Your task to perform on an android device: turn pop-ups on in chrome Image 0: 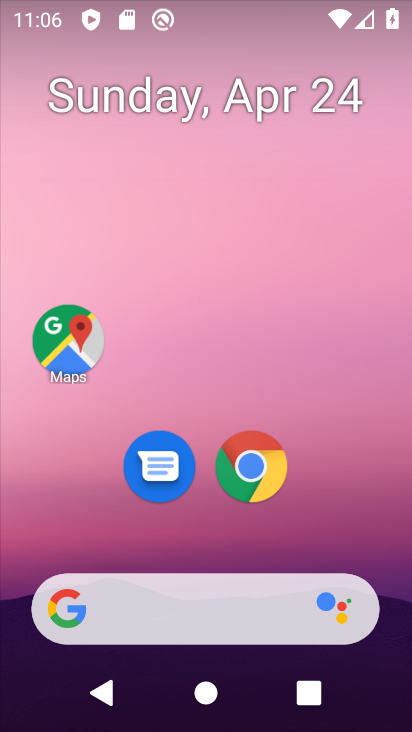
Step 0: click (272, 459)
Your task to perform on an android device: turn pop-ups on in chrome Image 1: 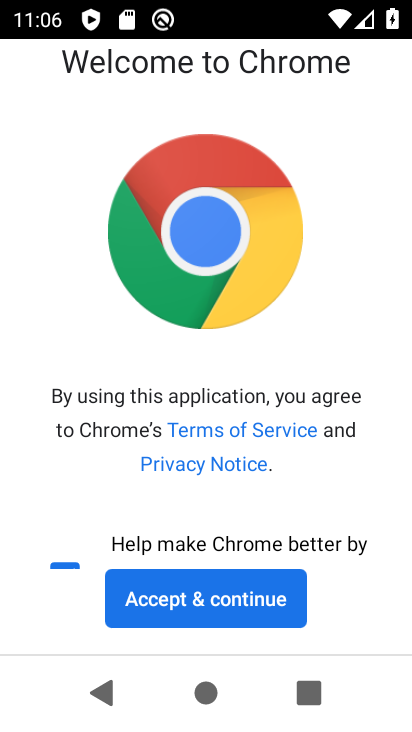
Step 1: click (244, 606)
Your task to perform on an android device: turn pop-ups on in chrome Image 2: 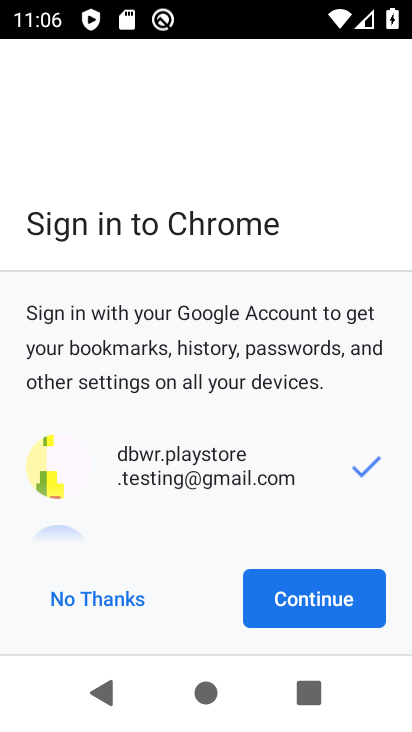
Step 2: click (259, 587)
Your task to perform on an android device: turn pop-ups on in chrome Image 3: 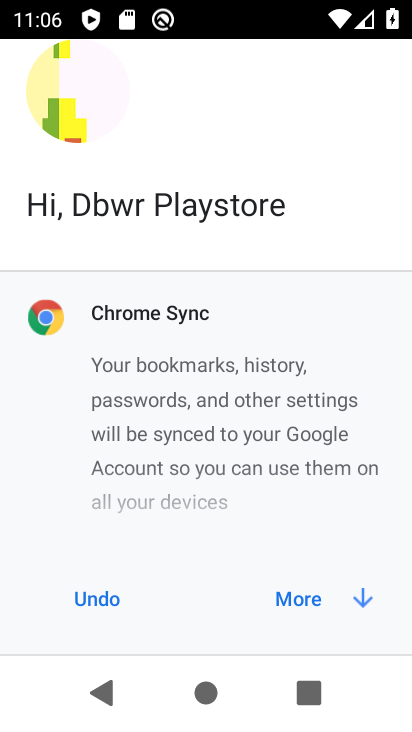
Step 3: click (323, 599)
Your task to perform on an android device: turn pop-ups on in chrome Image 4: 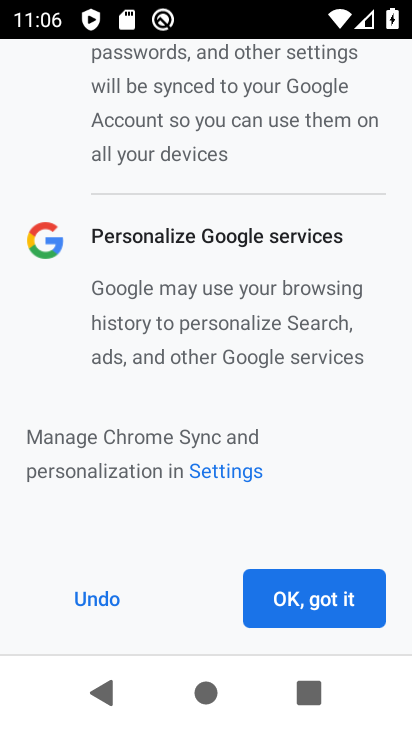
Step 4: click (310, 593)
Your task to perform on an android device: turn pop-ups on in chrome Image 5: 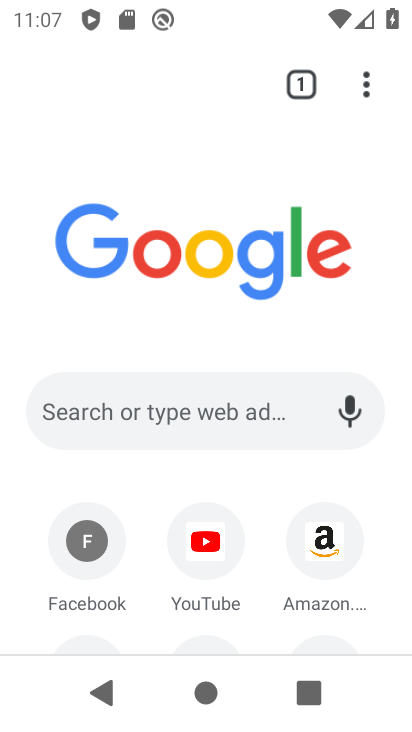
Step 5: click (363, 76)
Your task to perform on an android device: turn pop-ups on in chrome Image 6: 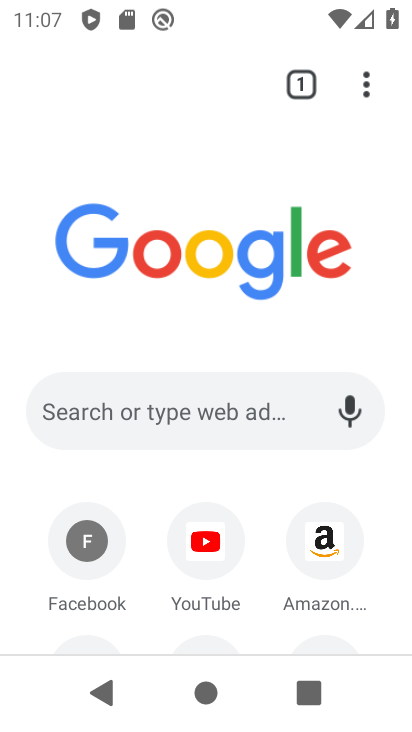
Step 6: click (365, 92)
Your task to perform on an android device: turn pop-ups on in chrome Image 7: 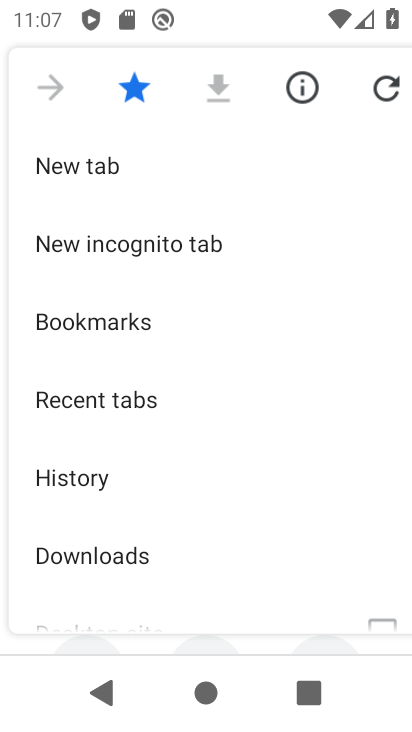
Step 7: drag from (158, 577) to (147, 152)
Your task to perform on an android device: turn pop-ups on in chrome Image 8: 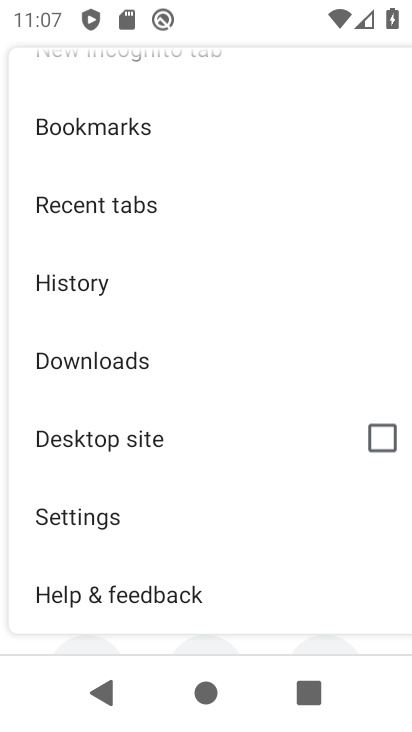
Step 8: click (102, 513)
Your task to perform on an android device: turn pop-ups on in chrome Image 9: 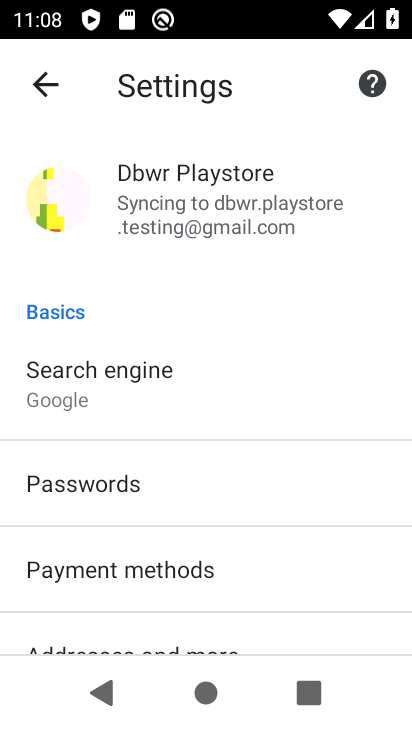
Step 9: drag from (143, 558) to (119, 199)
Your task to perform on an android device: turn pop-ups on in chrome Image 10: 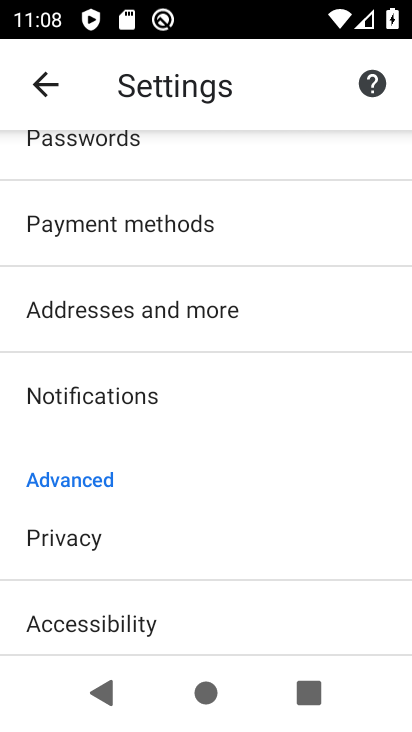
Step 10: drag from (246, 596) to (214, 199)
Your task to perform on an android device: turn pop-ups on in chrome Image 11: 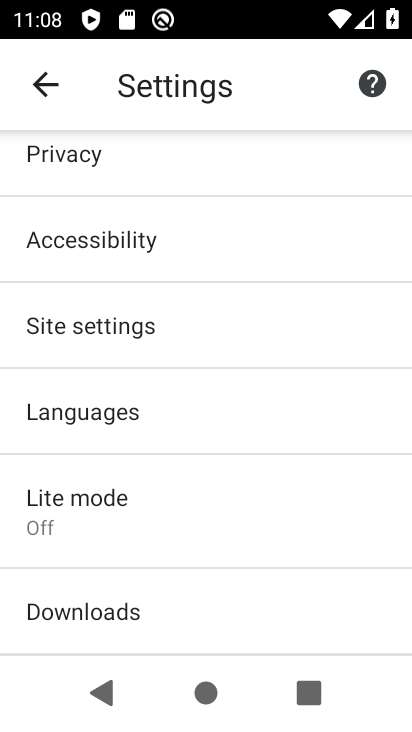
Step 11: drag from (240, 620) to (243, 102)
Your task to perform on an android device: turn pop-ups on in chrome Image 12: 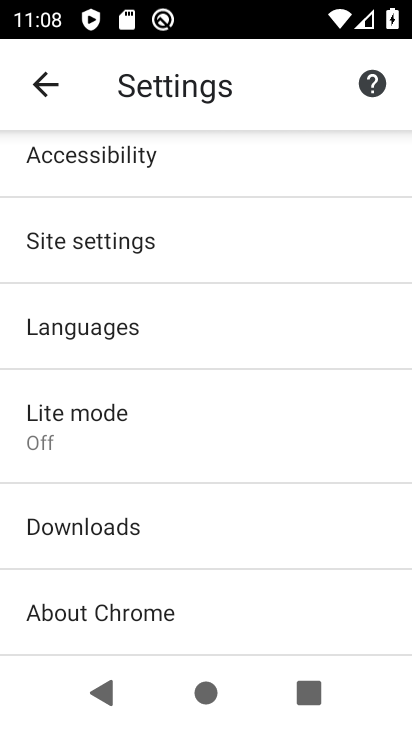
Step 12: drag from (211, 222) to (219, 553)
Your task to perform on an android device: turn pop-ups on in chrome Image 13: 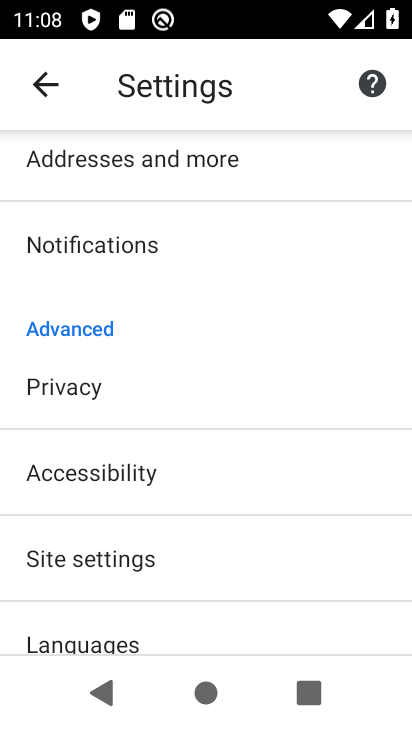
Step 13: click (135, 565)
Your task to perform on an android device: turn pop-ups on in chrome Image 14: 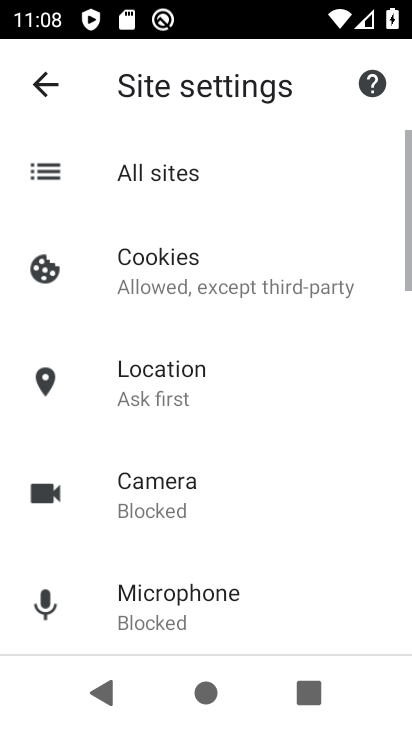
Step 14: drag from (191, 629) to (176, 154)
Your task to perform on an android device: turn pop-ups on in chrome Image 15: 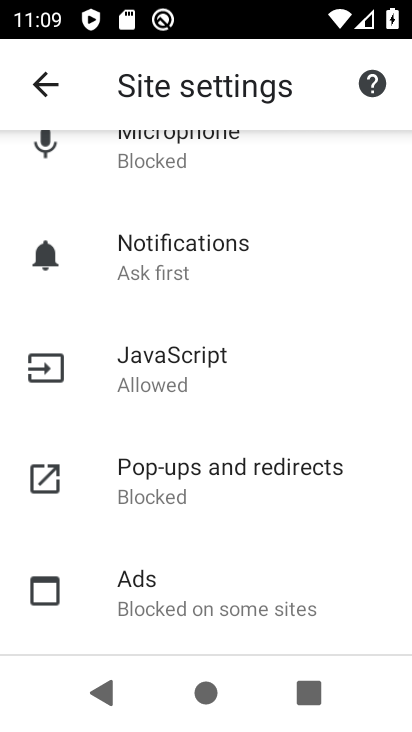
Step 15: click (175, 455)
Your task to perform on an android device: turn pop-ups on in chrome Image 16: 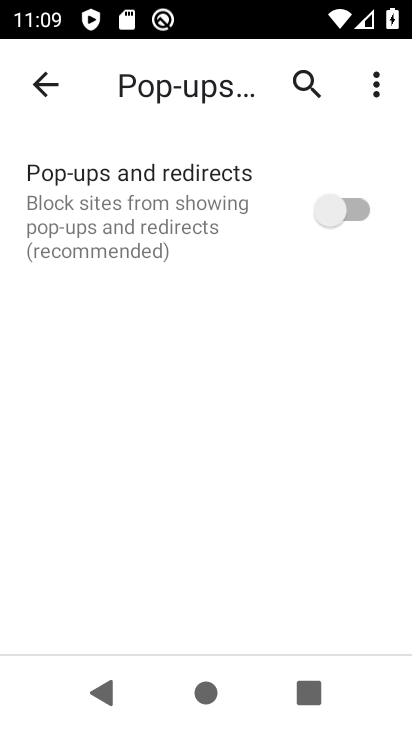
Step 16: click (334, 207)
Your task to perform on an android device: turn pop-ups on in chrome Image 17: 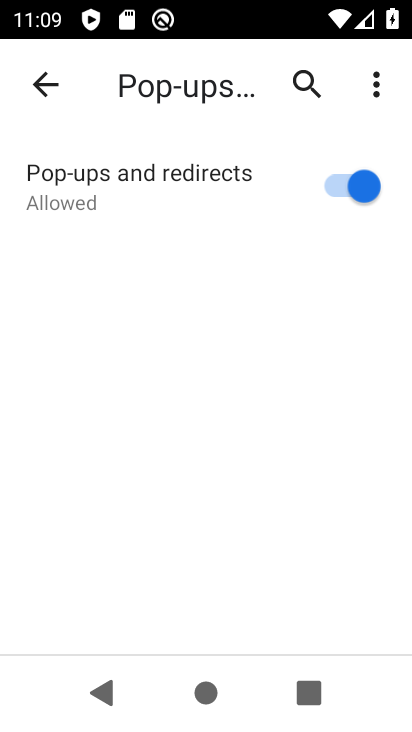
Step 17: task complete